Your task to perform on an android device: Search for sushi restaurants on Maps Image 0: 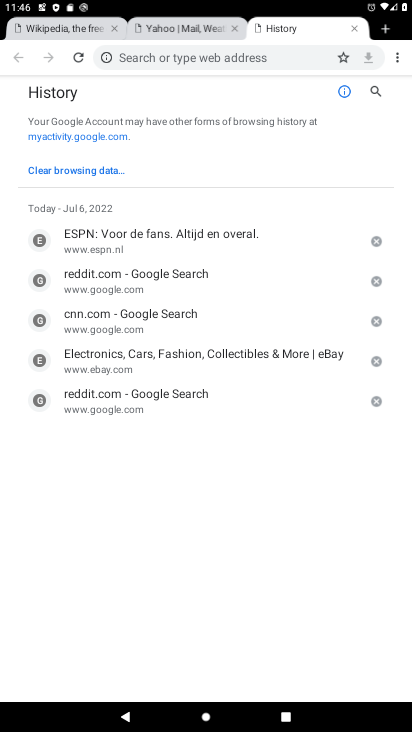
Step 0: press home button
Your task to perform on an android device: Search for sushi restaurants on Maps Image 1: 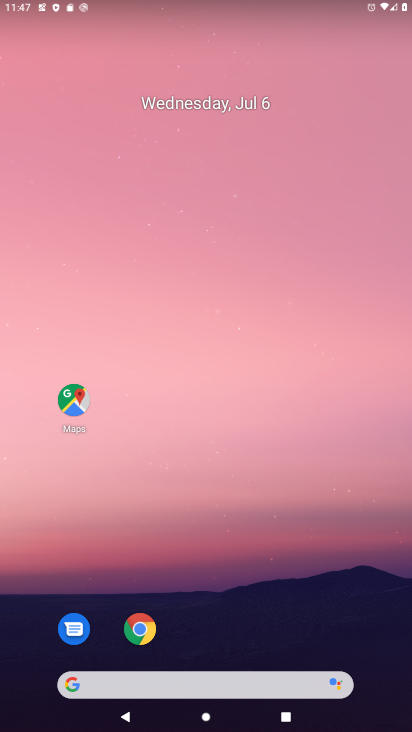
Step 1: click (75, 400)
Your task to perform on an android device: Search for sushi restaurants on Maps Image 2: 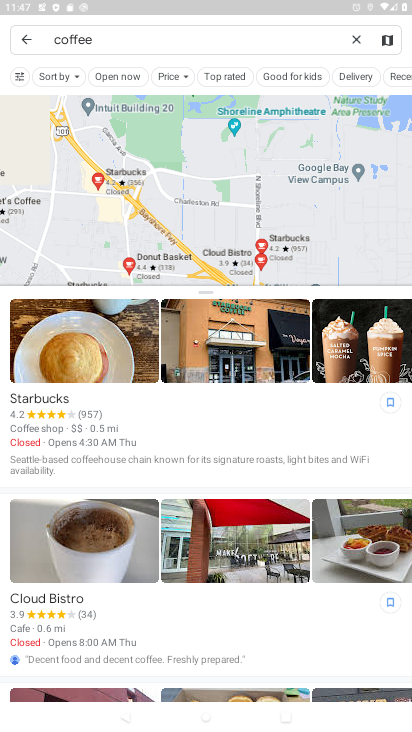
Step 2: click (257, 38)
Your task to perform on an android device: Search for sushi restaurants on Maps Image 3: 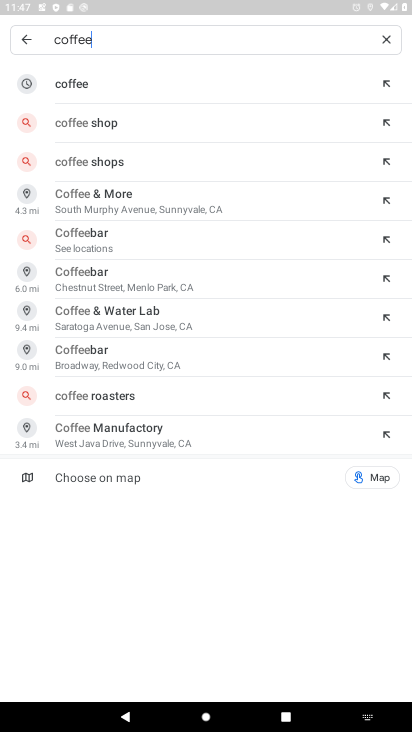
Step 3: click (388, 38)
Your task to perform on an android device: Search for sushi restaurants on Maps Image 4: 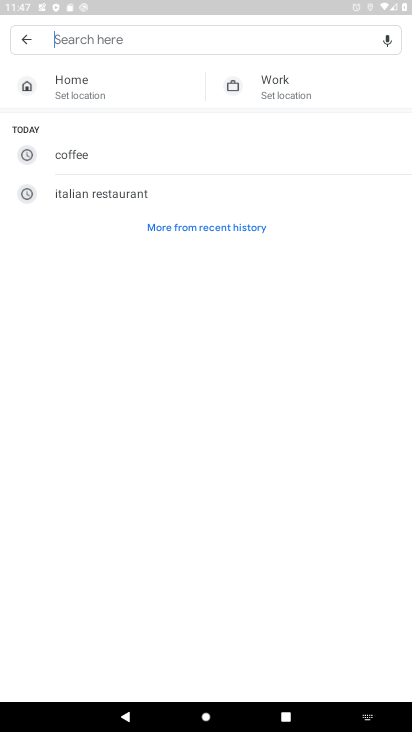
Step 4: type "sushi restaurants"
Your task to perform on an android device: Search for sushi restaurants on Maps Image 5: 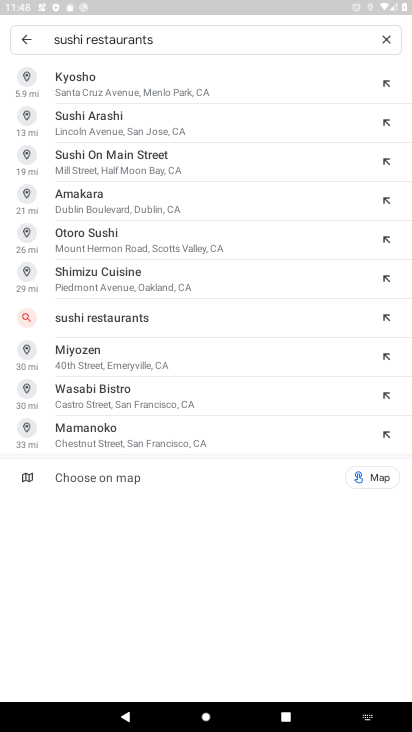
Step 5: click (132, 95)
Your task to perform on an android device: Search for sushi restaurants on Maps Image 6: 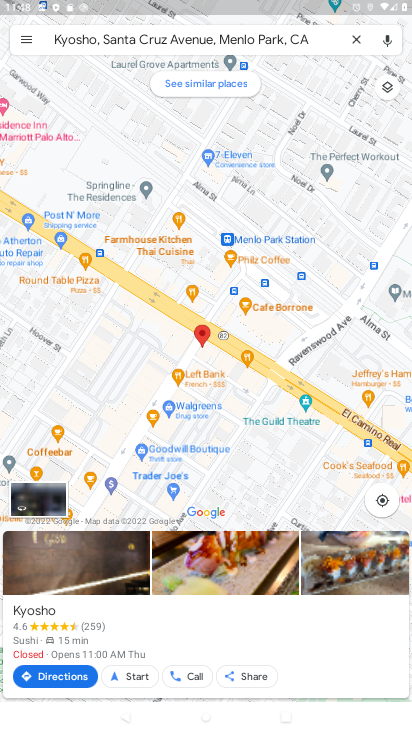
Step 6: task complete